Your task to perform on an android device: show emergency info Image 0: 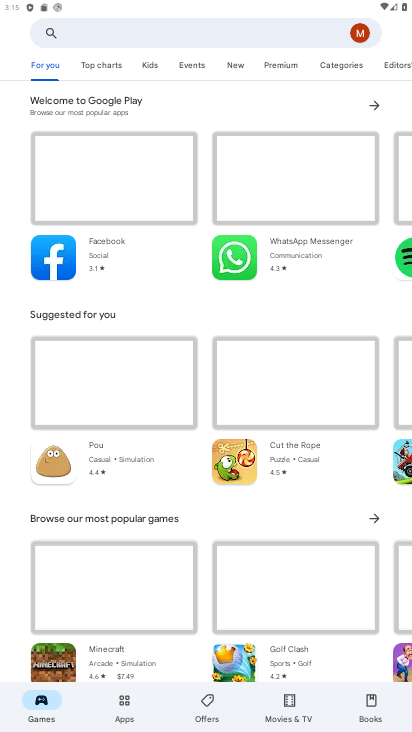
Step 0: press home button
Your task to perform on an android device: show emergency info Image 1: 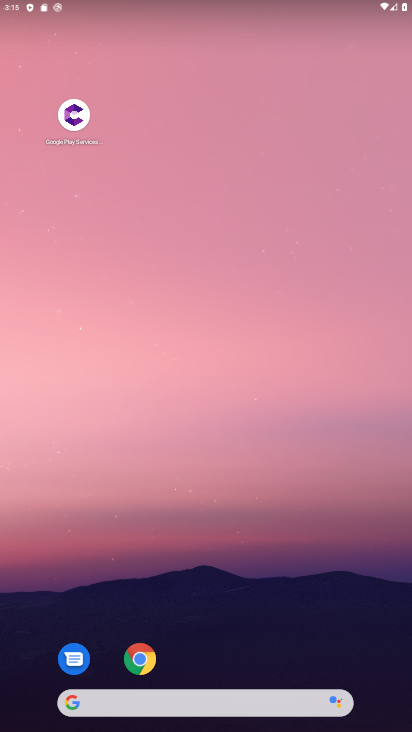
Step 1: drag from (254, 626) to (268, 190)
Your task to perform on an android device: show emergency info Image 2: 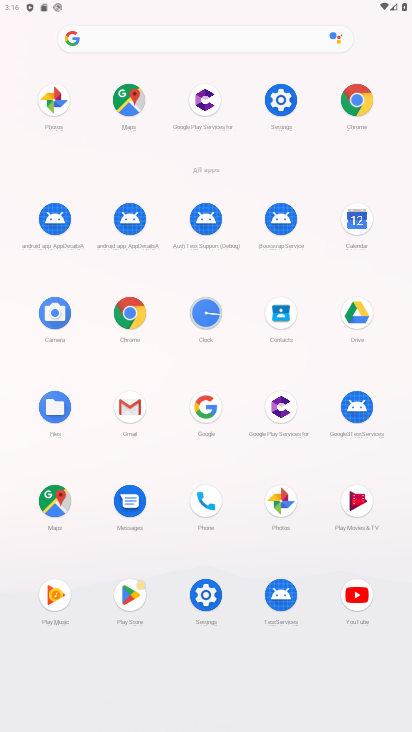
Step 2: click (280, 103)
Your task to perform on an android device: show emergency info Image 3: 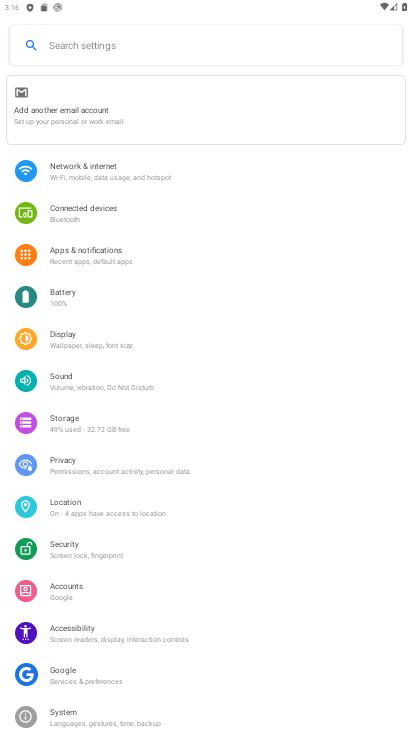
Step 3: drag from (228, 694) to (222, 227)
Your task to perform on an android device: show emergency info Image 4: 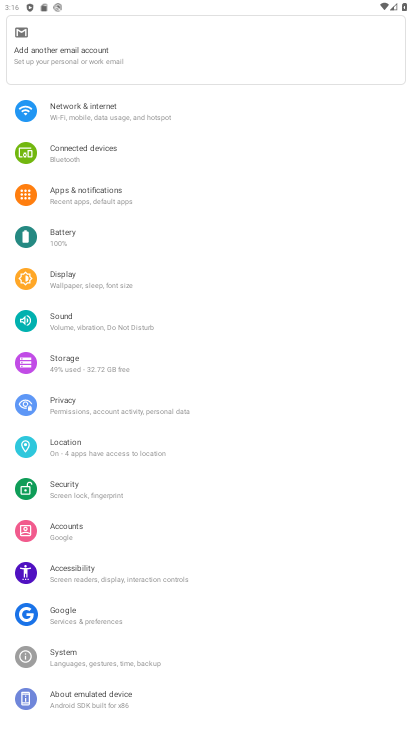
Step 4: click (187, 701)
Your task to perform on an android device: show emergency info Image 5: 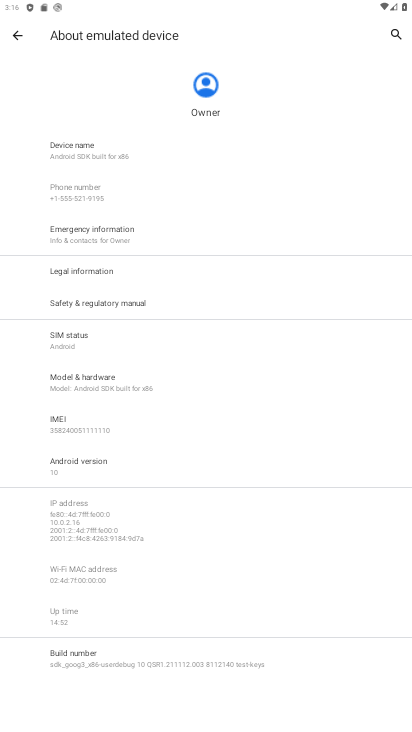
Step 5: click (224, 231)
Your task to perform on an android device: show emergency info Image 6: 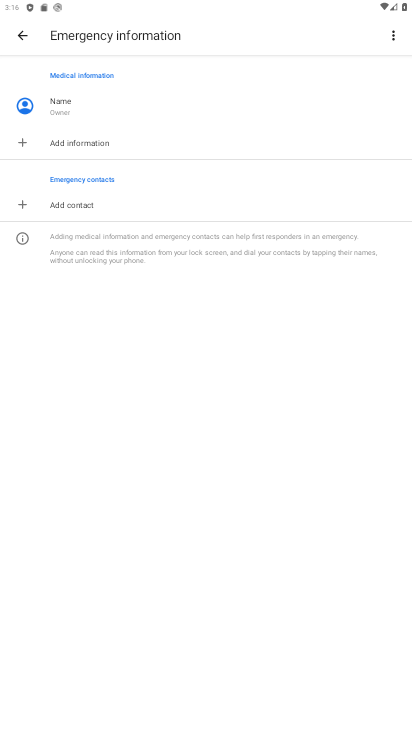
Step 6: task complete